Your task to perform on an android device: check android version Image 0: 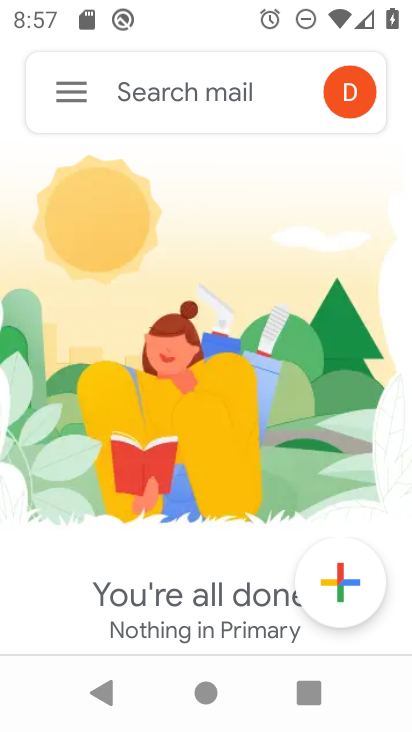
Step 0: press home button
Your task to perform on an android device: check android version Image 1: 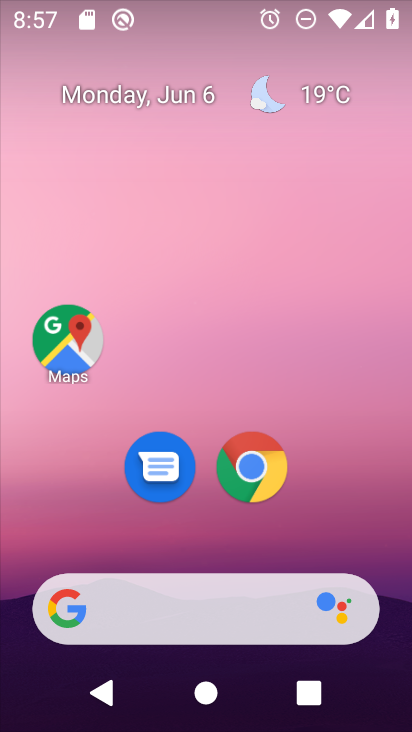
Step 1: drag from (359, 484) to (357, 111)
Your task to perform on an android device: check android version Image 2: 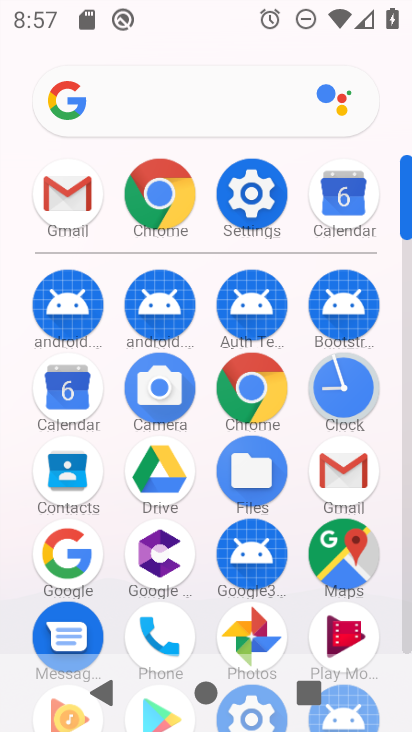
Step 2: click (258, 208)
Your task to perform on an android device: check android version Image 3: 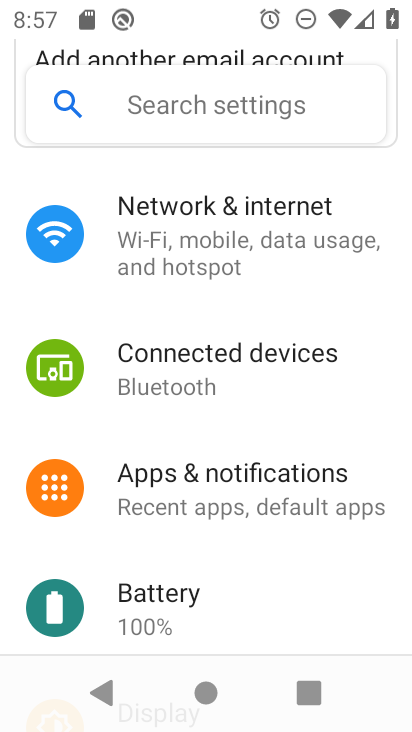
Step 3: drag from (376, 419) to (369, 293)
Your task to perform on an android device: check android version Image 4: 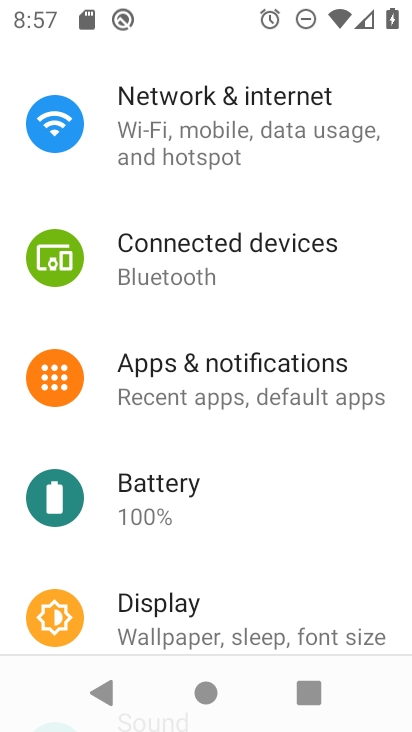
Step 4: drag from (381, 538) to (365, 369)
Your task to perform on an android device: check android version Image 5: 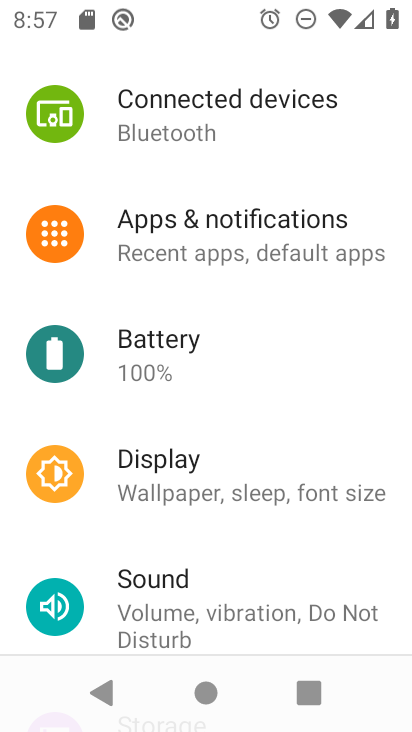
Step 5: drag from (345, 560) to (336, 473)
Your task to perform on an android device: check android version Image 6: 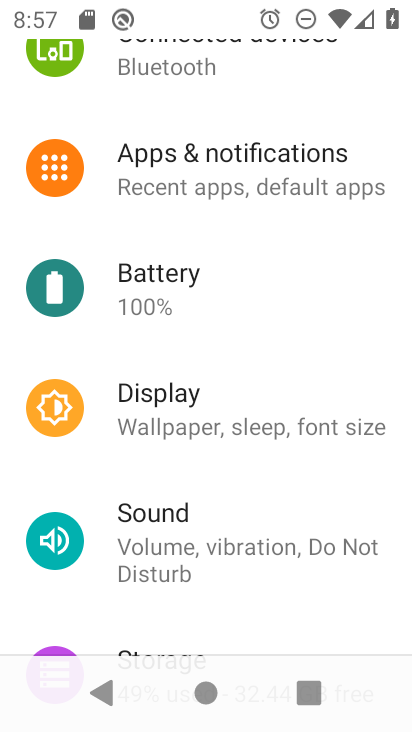
Step 6: drag from (351, 583) to (358, 462)
Your task to perform on an android device: check android version Image 7: 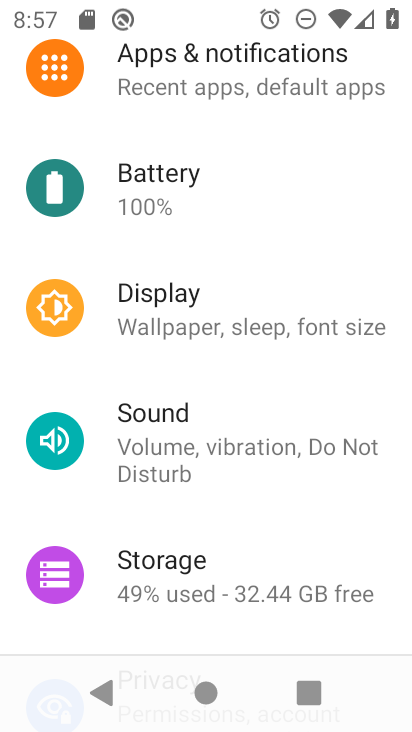
Step 7: drag from (359, 603) to (361, 486)
Your task to perform on an android device: check android version Image 8: 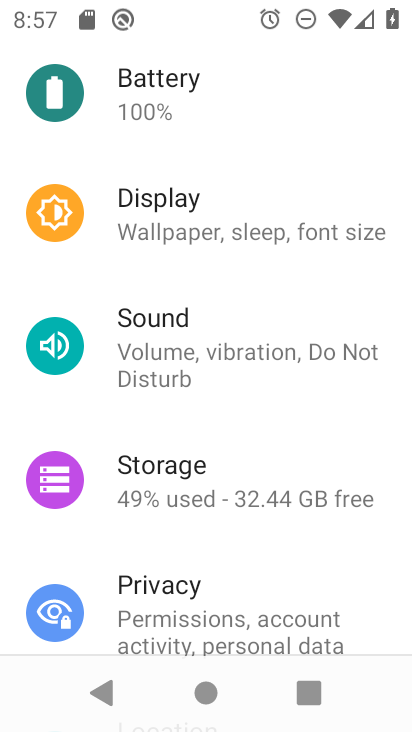
Step 8: drag from (346, 595) to (343, 484)
Your task to perform on an android device: check android version Image 9: 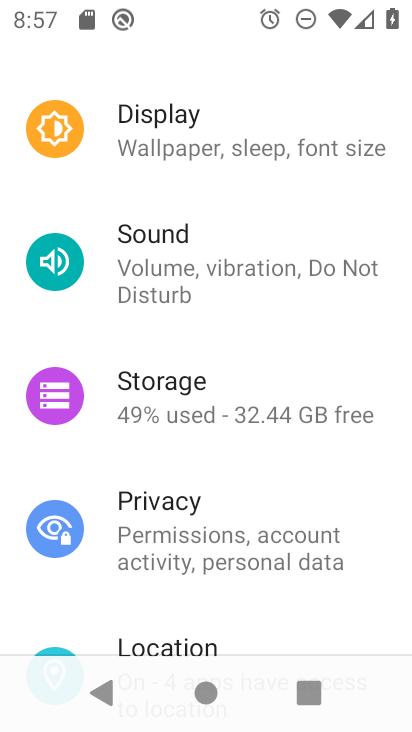
Step 9: drag from (349, 567) to (315, 287)
Your task to perform on an android device: check android version Image 10: 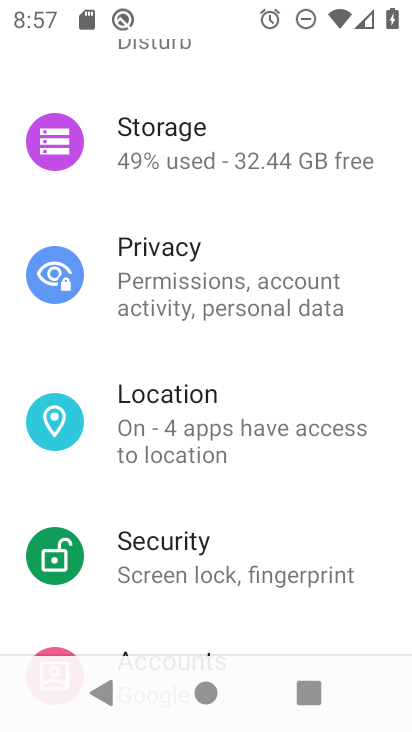
Step 10: drag from (335, 522) to (348, 404)
Your task to perform on an android device: check android version Image 11: 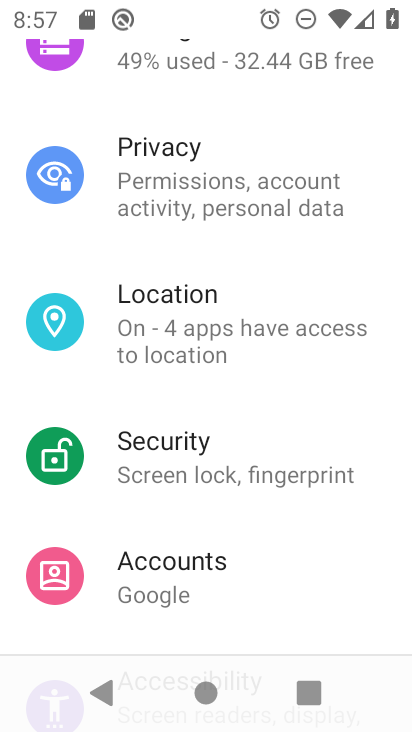
Step 11: drag from (338, 588) to (329, 453)
Your task to perform on an android device: check android version Image 12: 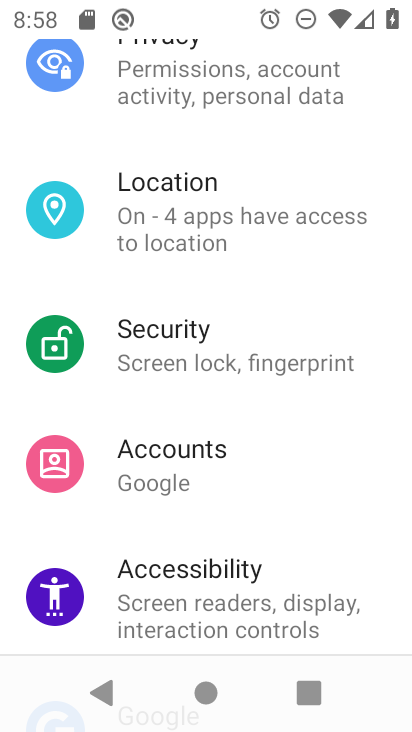
Step 12: drag from (358, 621) to (357, 386)
Your task to perform on an android device: check android version Image 13: 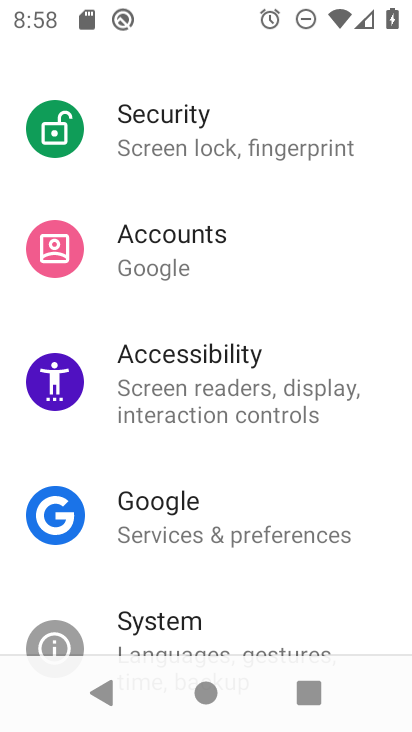
Step 13: drag from (339, 593) to (344, 423)
Your task to perform on an android device: check android version Image 14: 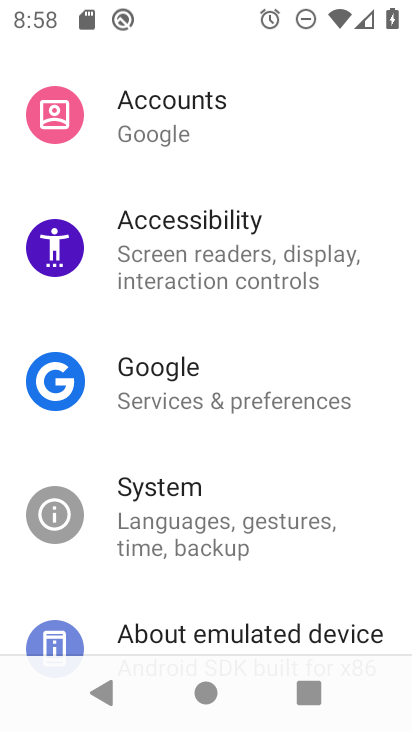
Step 14: drag from (353, 585) to (350, 412)
Your task to perform on an android device: check android version Image 15: 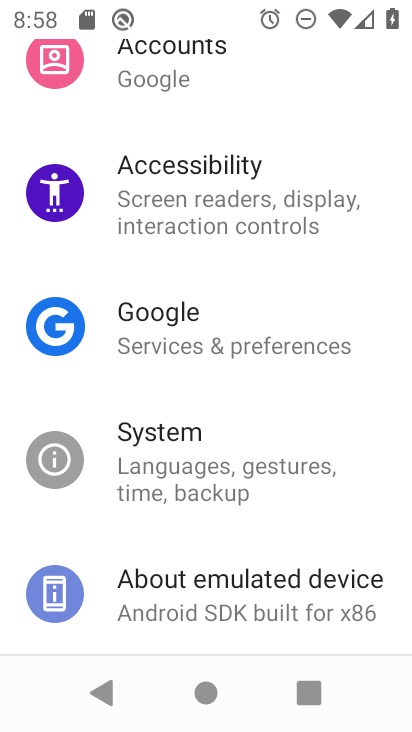
Step 15: click (270, 458)
Your task to perform on an android device: check android version Image 16: 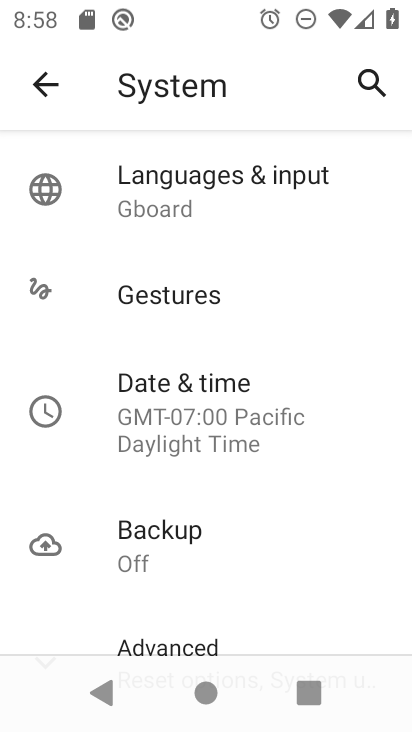
Step 16: drag from (345, 556) to (333, 392)
Your task to perform on an android device: check android version Image 17: 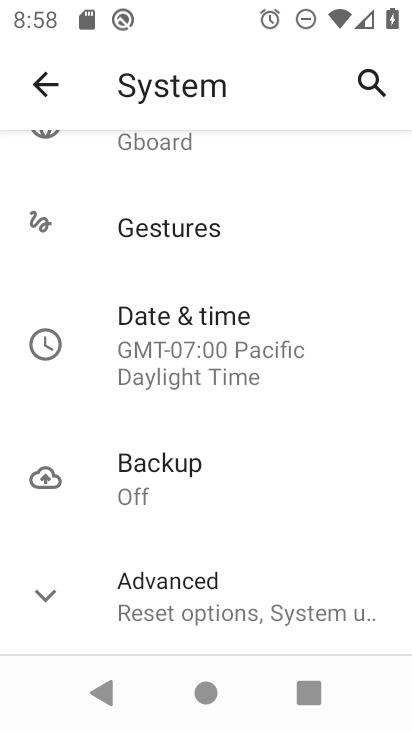
Step 17: click (261, 605)
Your task to perform on an android device: check android version Image 18: 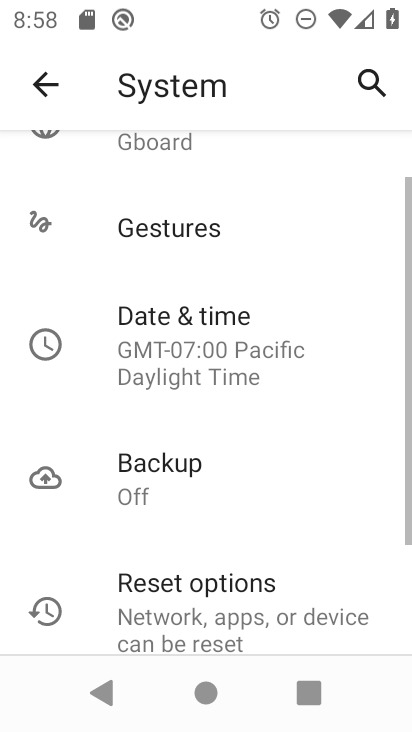
Step 18: drag from (326, 514) to (330, 272)
Your task to perform on an android device: check android version Image 19: 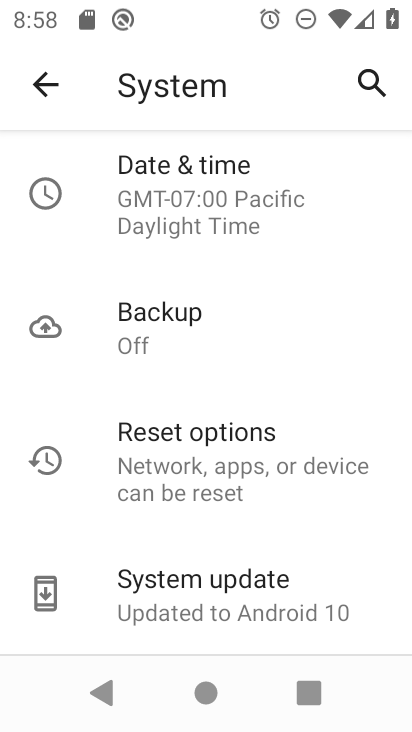
Step 19: click (267, 619)
Your task to perform on an android device: check android version Image 20: 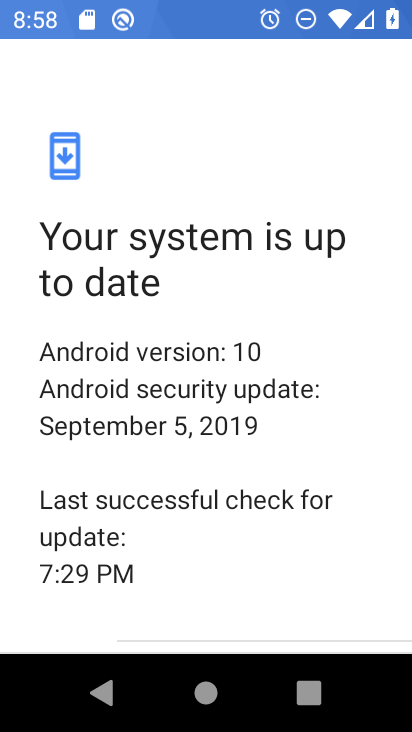
Step 20: task complete